Your task to perform on an android device: toggle pop-ups in chrome Image 0: 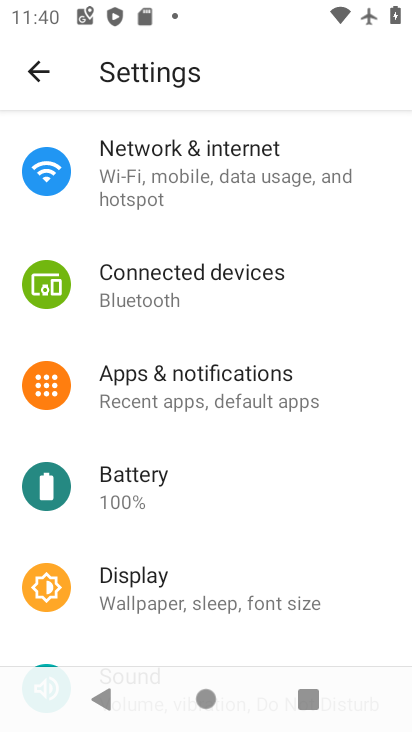
Step 0: press home button
Your task to perform on an android device: toggle pop-ups in chrome Image 1: 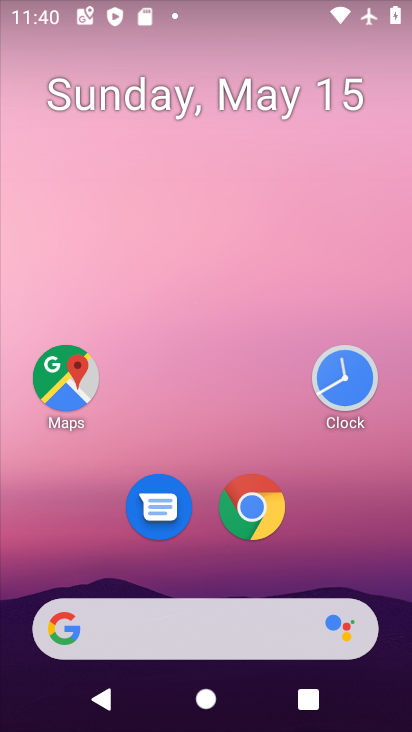
Step 1: click (269, 523)
Your task to perform on an android device: toggle pop-ups in chrome Image 2: 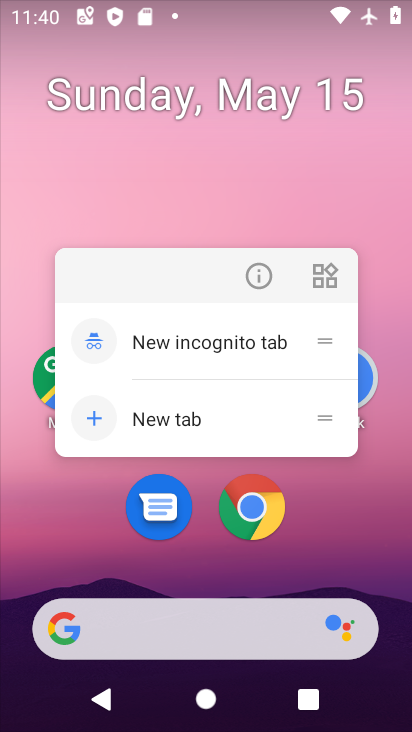
Step 2: click (249, 517)
Your task to perform on an android device: toggle pop-ups in chrome Image 3: 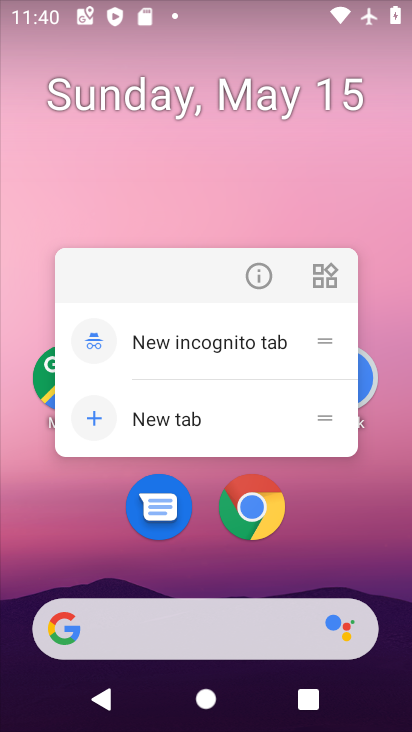
Step 3: click (274, 530)
Your task to perform on an android device: toggle pop-ups in chrome Image 4: 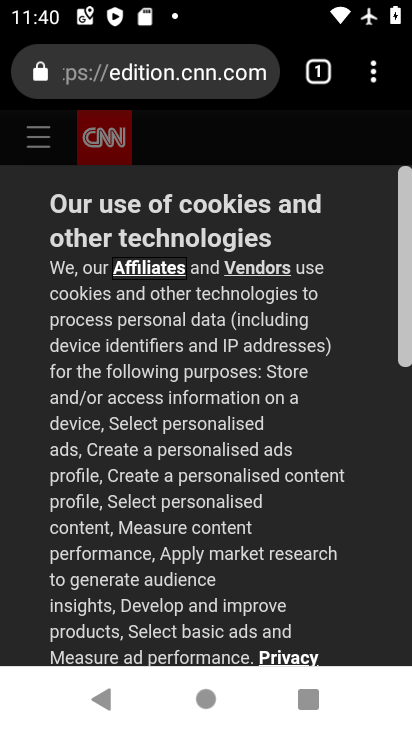
Step 4: drag from (374, 76) to (244, 494)
Your task to perform on an android device: toggle pop-ups in chrome Image 5: 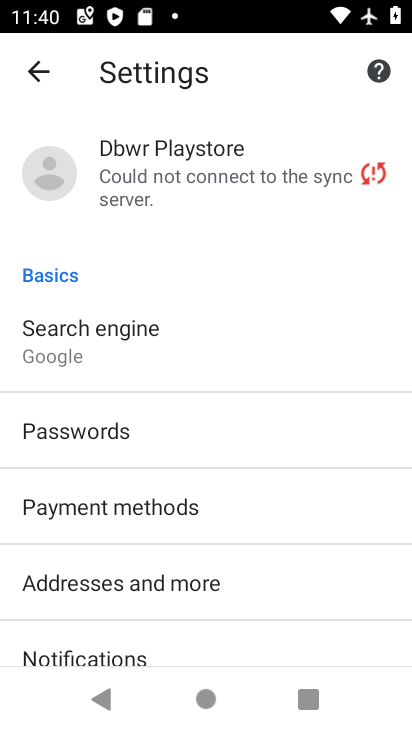
Step 5: drag from (215, 600) to (320, 203)
Your task to perform on an android device: toggle pop-ups in chrome Image 6: 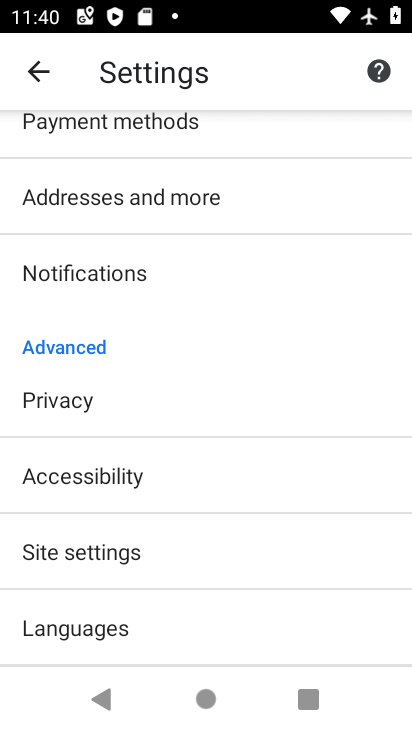
Step 6: drag from (172, 604) to (196, 332)
Your task to perform on an android device: toggle pop-ups in chrome Image 7: 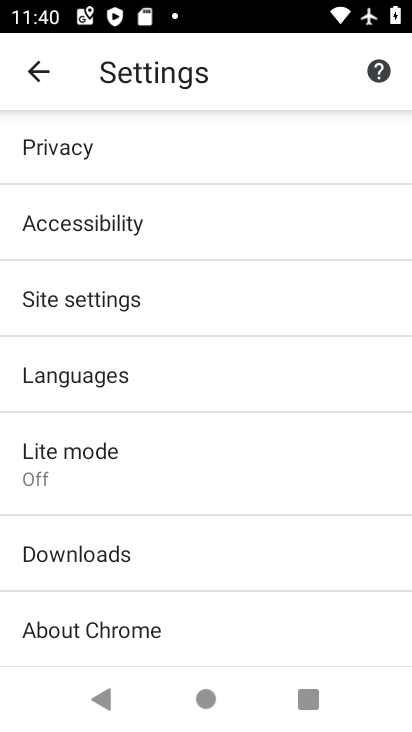
Step 7: click (128, 307)
Your task to perform on an android device: toggle pop-ups in chrome Image 8: 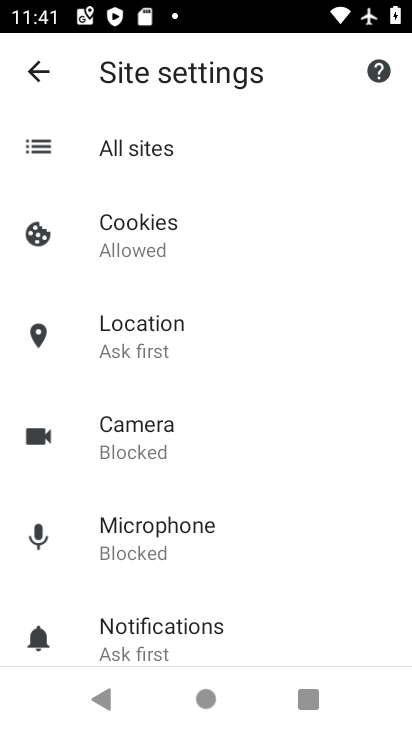
Step 8: drag from (249, 623) to (284, 217)
Your task to perform on an android device: toggle pop-ups in chrome Image 9: 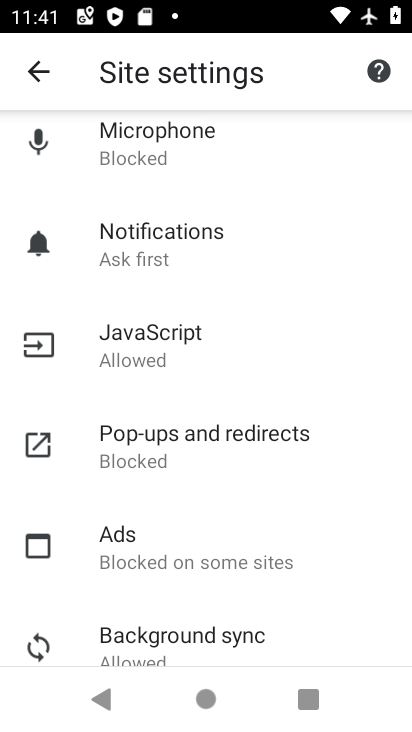
Step 9: click (238, 449)
Your task to perform on an android device: toggle pop-ups in chrome Image 10: 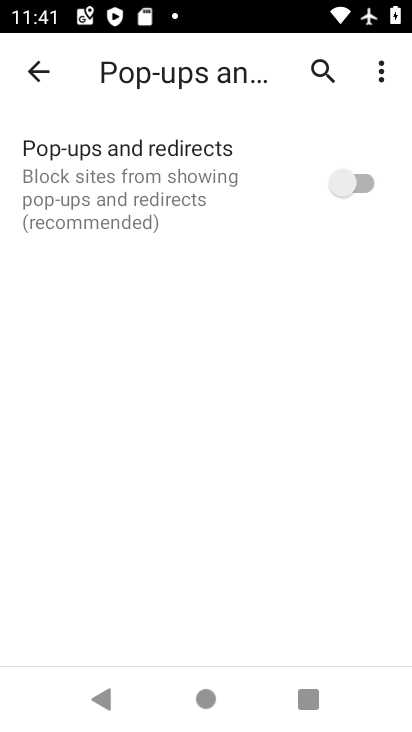
Step 10: click (350, 182)
Your task to perform on an android device: toggle pop-ups in chrome Image 11: 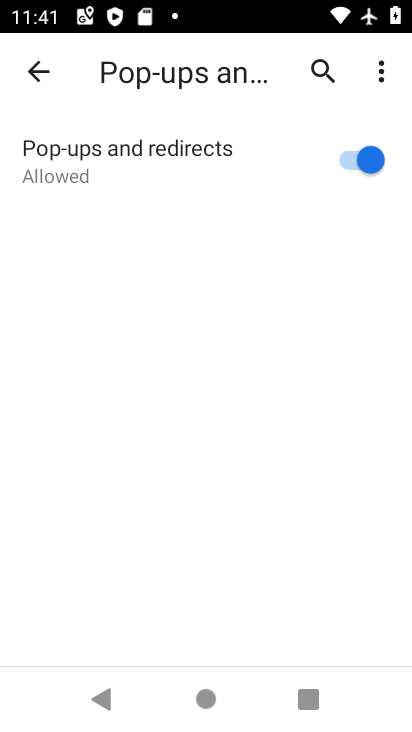
Step 11: task complete